Your task to perform on an android device: Open maps Image 0: 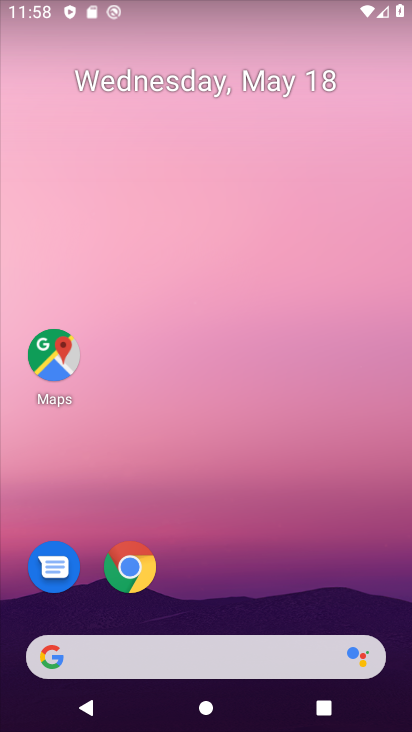
Step 0: click (44, 353)
Your task to perform on an android device: Open maps Image 1: 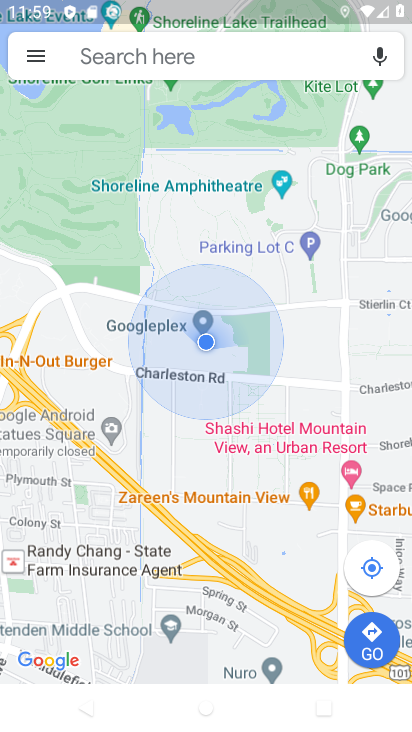
Step 1: task complete